Your task to perform on an android device: turn smart compose on in the gmail app Image 0: 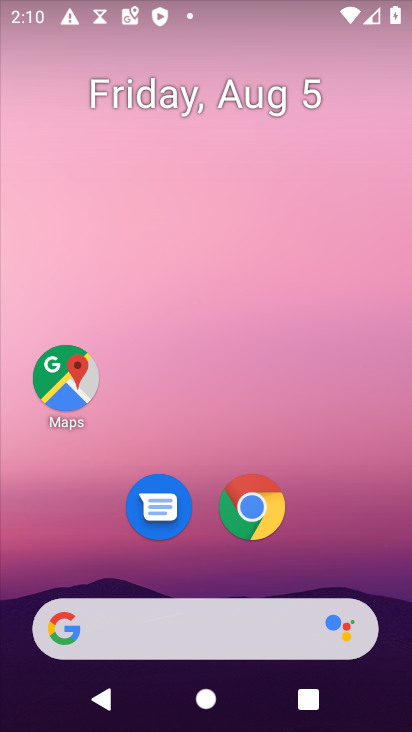
Step 0: drag from (340, 558) to (251, 57)
Your task to perform on an android device: turn smart compose on in the gmail app Image 1: 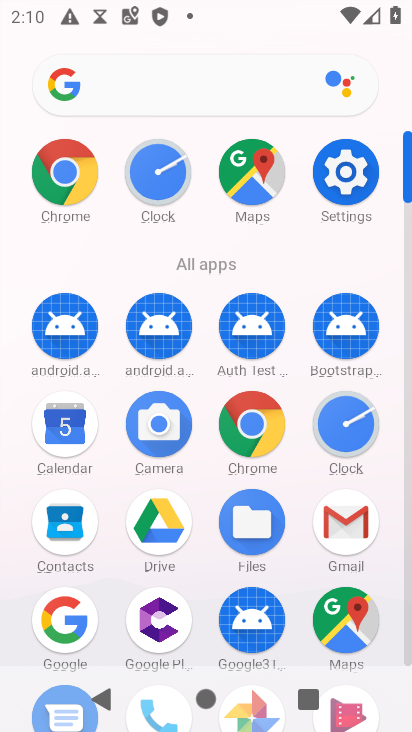
Step 1: click (338, 517)
Your task to perform on an android device: turn smart compose on in the gmail app Image 2: 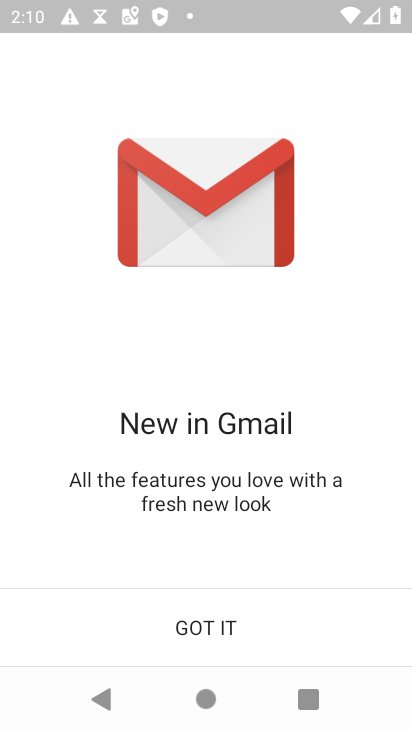
Step 2: click (240, 635)
Your task to perform on an android device: turn smart compose on in the gmail app Image 3: 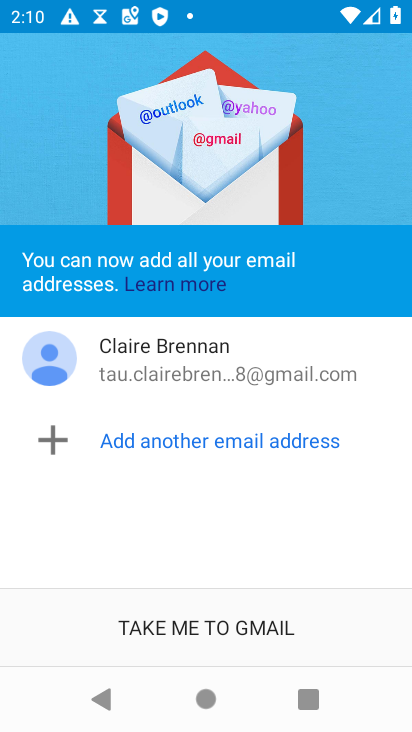
Step 3: click (240, 635)
Your task to perform on an android device: turn smart compose on in the gmail app Image 4: 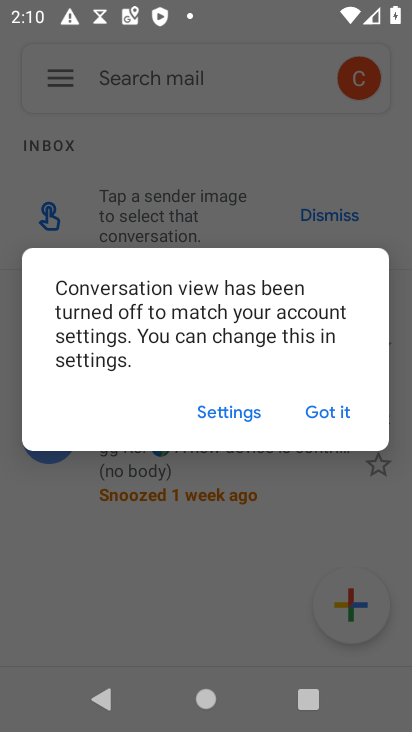
Step 4: click (328, 417)
Your task to perform on an android device: turn smart compose on in the gmail app Image 5: 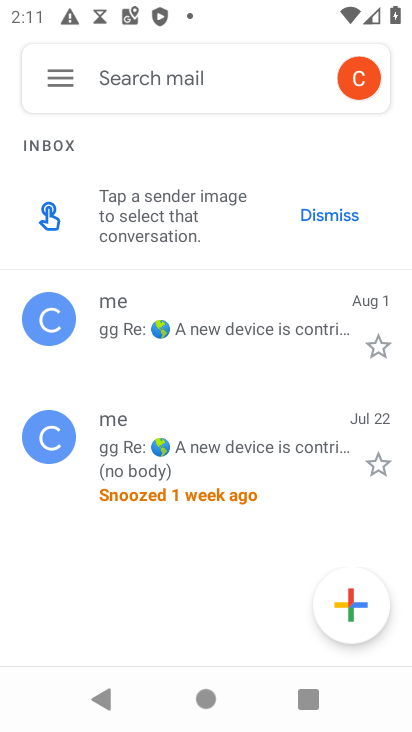
Step 5: click (70, 70)
Your task to perform on an android device: turn smart compose on in the gmail app Image 6: 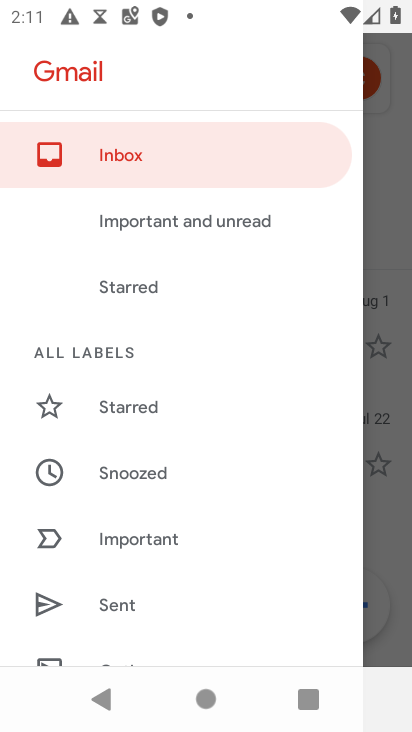
Step 6: drag from (129, 543) to (106, 170)
Your task to perform on an android device: turn smart compose on in the gmail app Image 7: 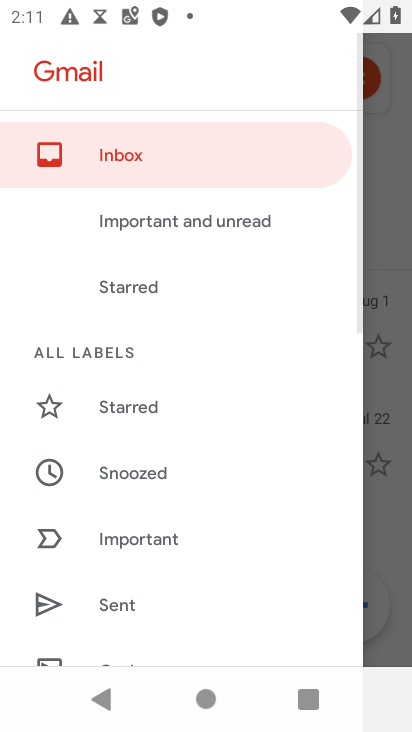
Step 7: drag from (182, 575) to (194, 186)
Your task to perform on an android device: turn smart compose on in the gmail app Image 8: 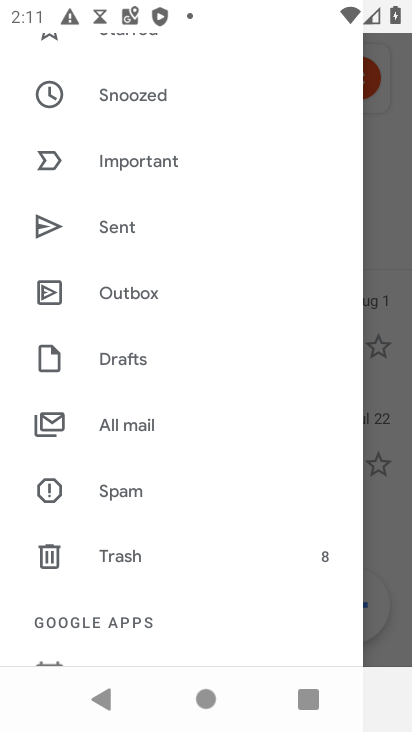
Step 8: drag from (173, 594) to (157, 224)
Your task to perform on an android device: turn smart compose on in the gmail app Image 9: 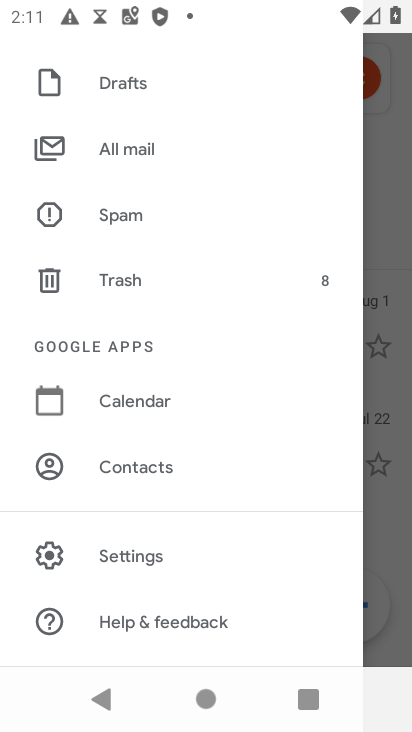
Step 9: click (151, 554)
Your task to perform on an android device: turn smart compose on in the gmail app Image 10: 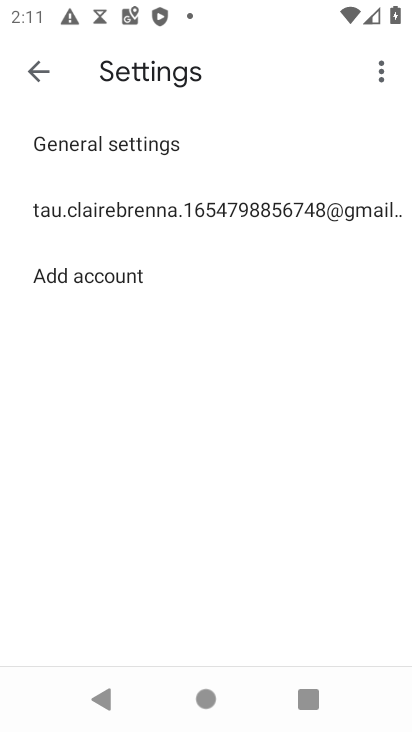
Step 10: click (249, 201)
Your task to perform on an android device: turn smart compose on in the gmail app Image 11: 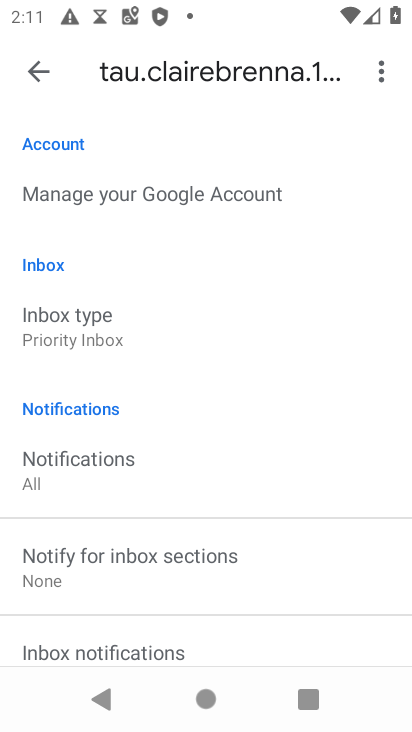
Step 11: task complete